Your task to perform on an android device: Open the web browser Image 0: 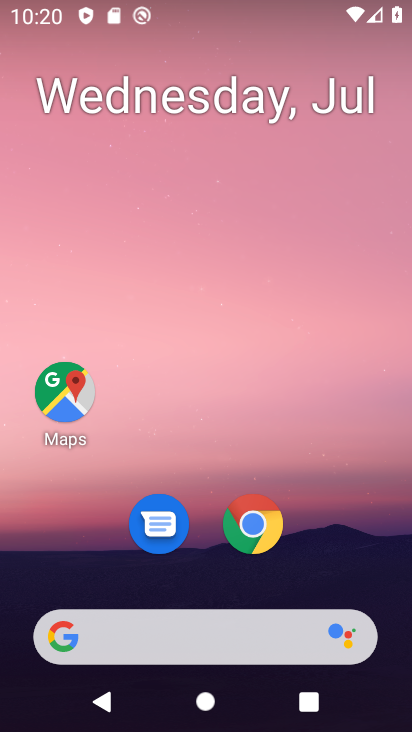
Step 0: click (323, 69)
Your task to perform on an android device: Open the web browser Image 1: 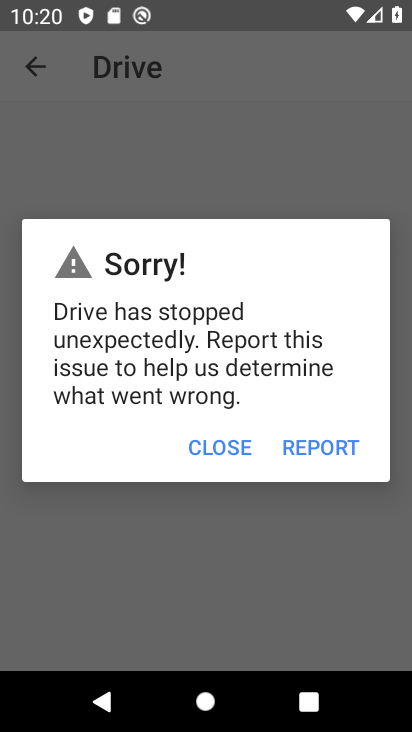
Step 1: press home button
Your task to perform on an android device: Open the web browser Image 2: 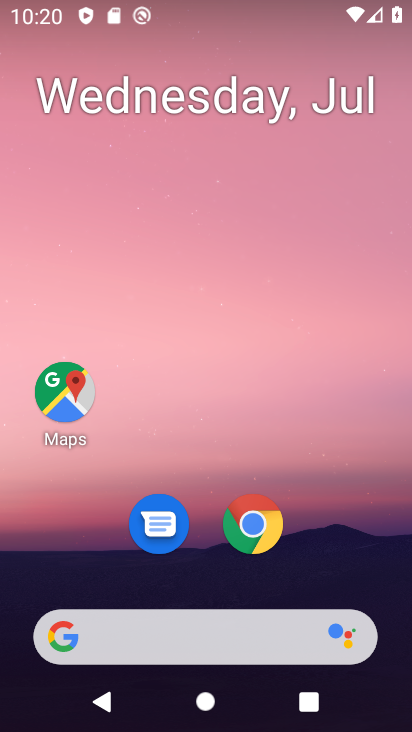
Step 2: click (258, 520)
Your task to perform on an android device: Open the web browser Image 3: 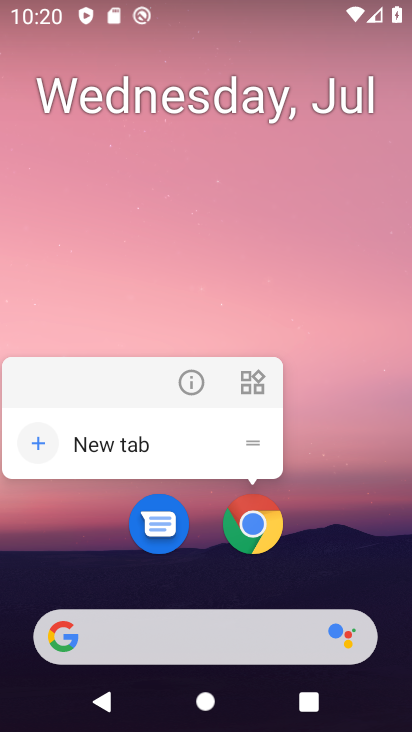
Step 3: click (258, 530)
Your task to perform on an android device: Open the web browser Image 4: 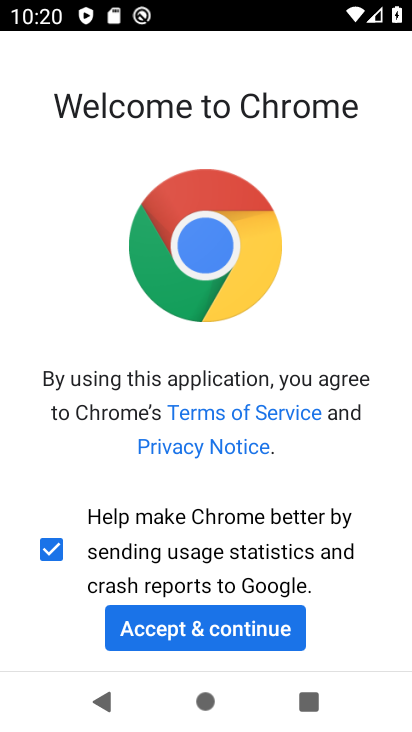
Step 4: click (221, 635)
Your task to perform on an android device: Open the web browser Image 5: 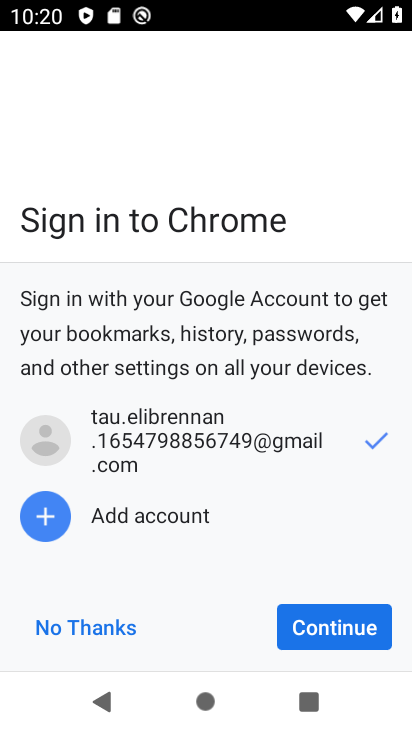
Step 5: click (322, 627)
Your task to perform on an android device: Open the web browser Image 6: 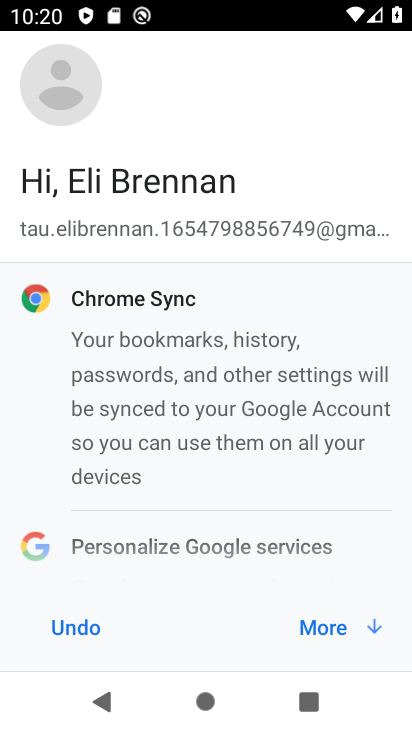
Step 6: click (322, 627)
Your task to perform on an android device: Open the web browser Image 7: 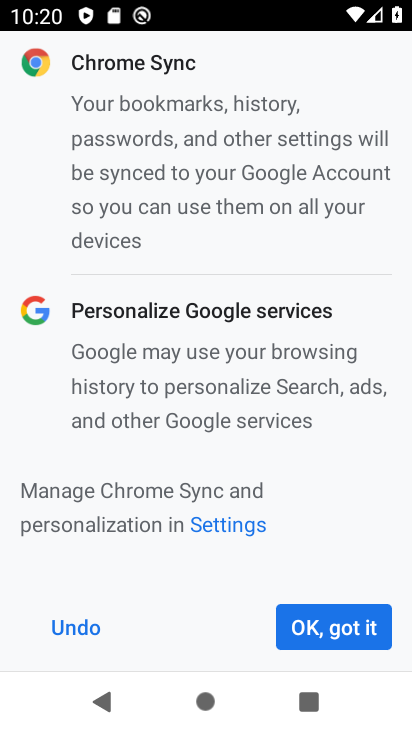
Step 7: click (315, 625)
Your task to perform on an android device: Open the web browser Image 8: 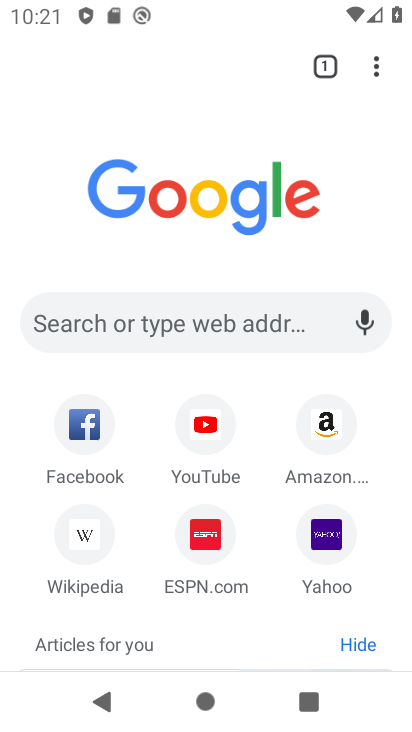
Step 8: task complete